Your task to perform on an android device: Open location settings Image 0: 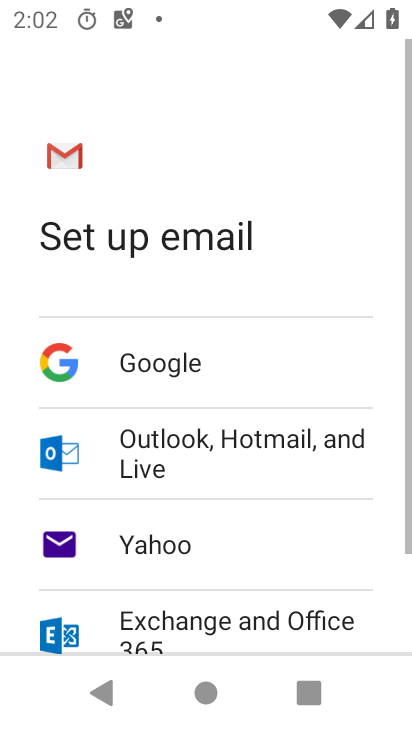
Step 0: press back button
Your task to perform on an android device: Open location settings Image 1: 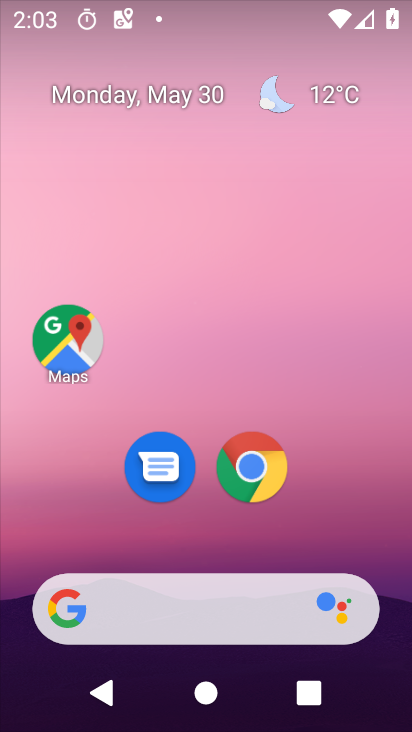
Step 1: drag from (397, 670) to (366, 212)
Your task to perform on an android device: Open location settings Image 2: 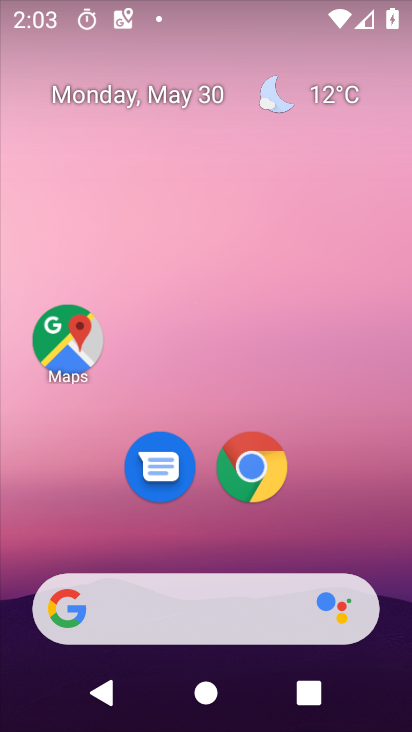
Step 2: drag from (394, 674) to (360, 188)
Your task to perform on an android device: Open location settings Image 3: 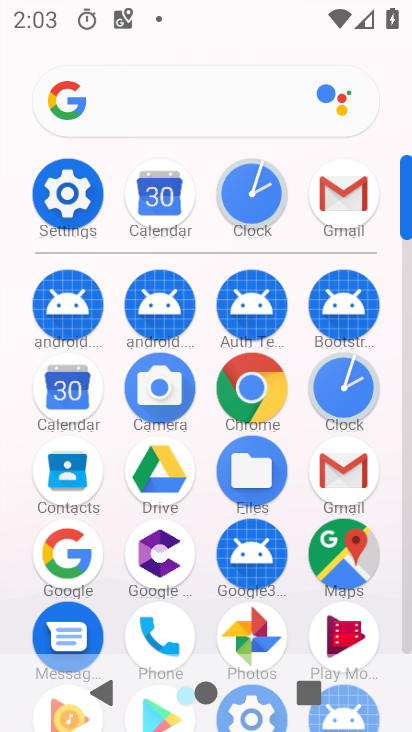
Step 3: click (68, 196)
Your task to perform on an android device: Open location settings Image 4: 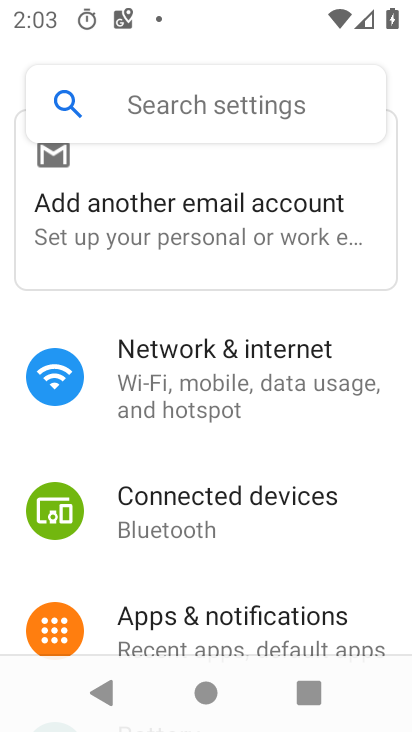
Step 4: drag from (247, 619) to (252, 394)
Your task to perform on an android device: Open location settings Image 5: 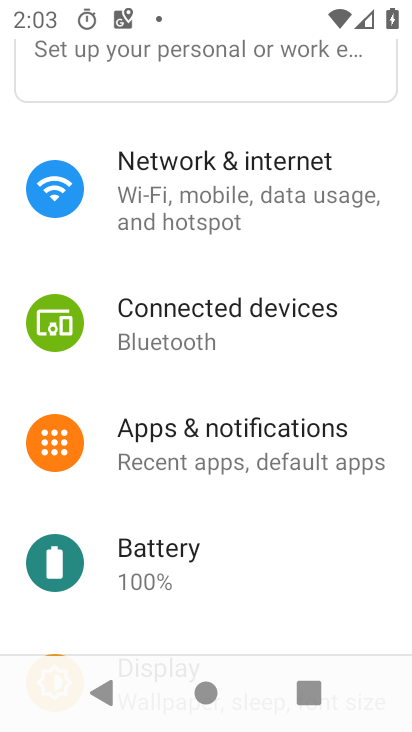
Step 5: drag from (260, 579) to (248, 386)
Your task to perform on an android device: Open location settings Image 6: 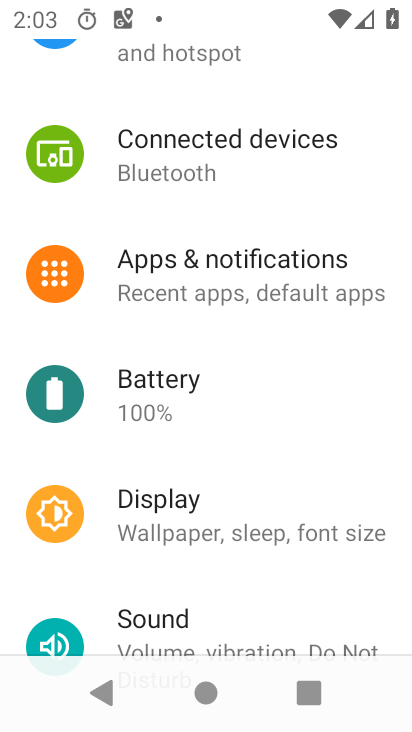
Step 6: drag from (202, 606) to (206, 373)
Your task to perform on an android device: Open location settings Image 7: 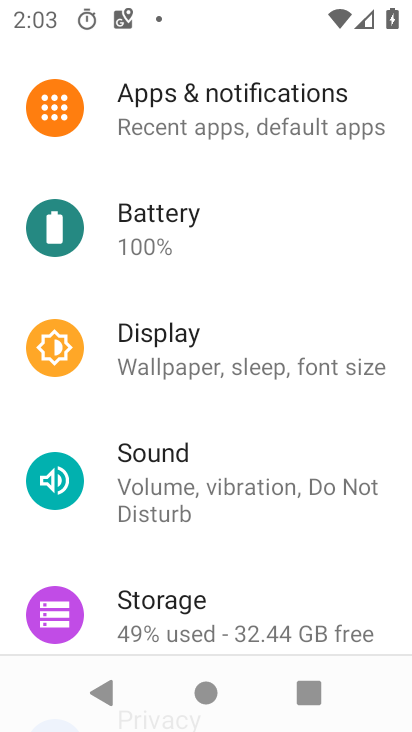
Step 7: drag from (260, 560) to (250, 317)
Your task to perform on an android device: Open location settings Image 8: 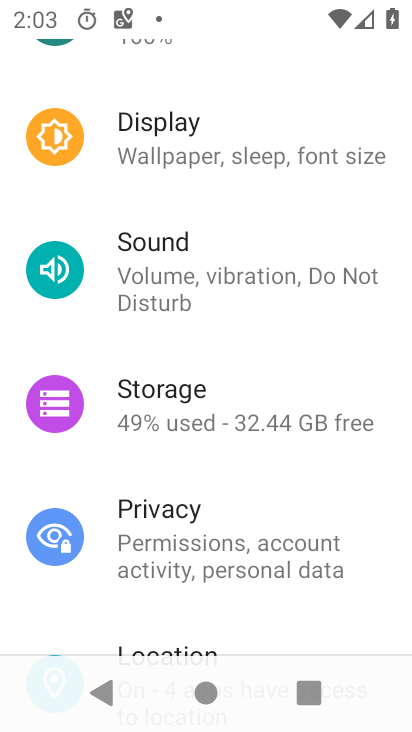
Step 8: drag from (250, 607) to (257, 381)
Your task to perform on an android device: Open location settings Image 9: 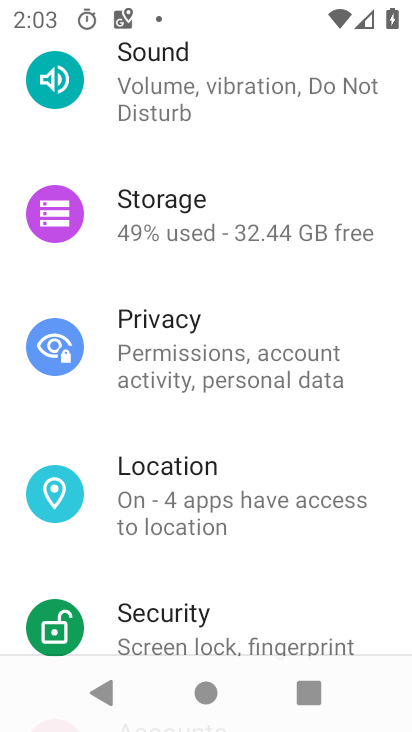
Step 9: click (156, 506)
Your task to perform on an android device: Open location settings Image 10: 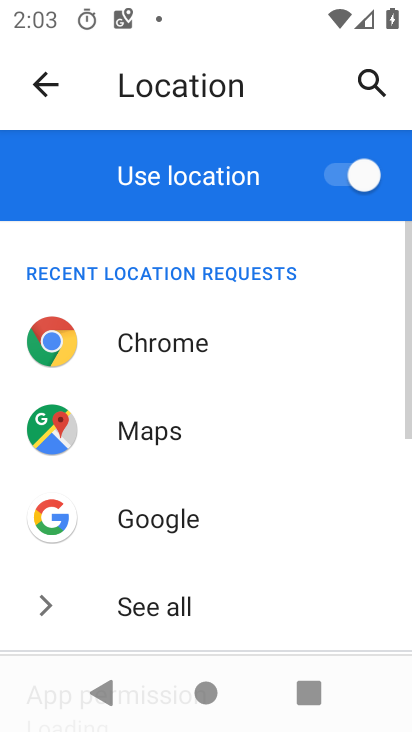
Step 10: task complete